Your task to perform on an android device: What's the weather today? Image 0: 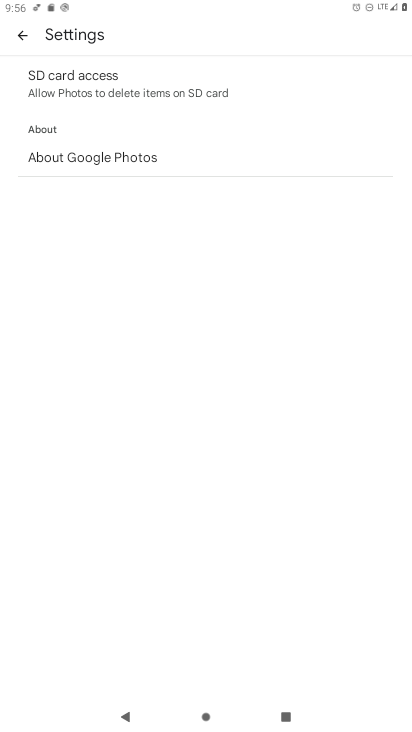
Step 0: press home button
Your task to perform on an android device: What's the weather today? Image 1: 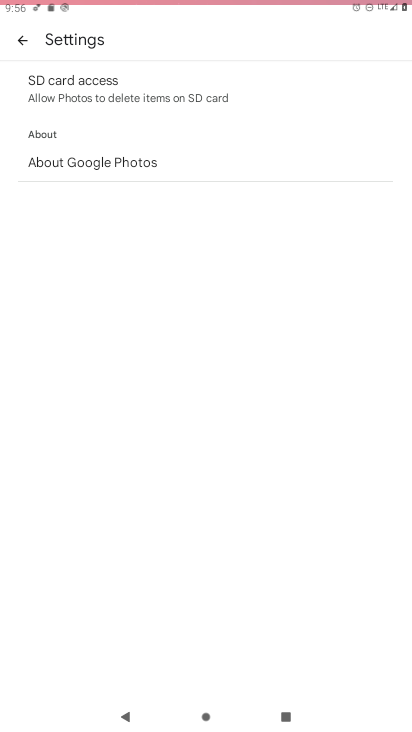
Step 1: drag from (385, 704) to (174, 12)
Your task to perform on an android device: What's the weather today? Image 2: 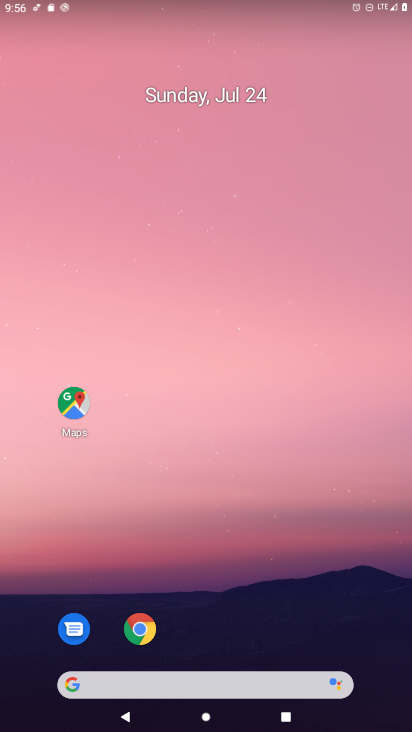
Step 2: drag from (294, 552) to (14, 79)
Your task to perform on an android device: What's the weather today? Image 3: 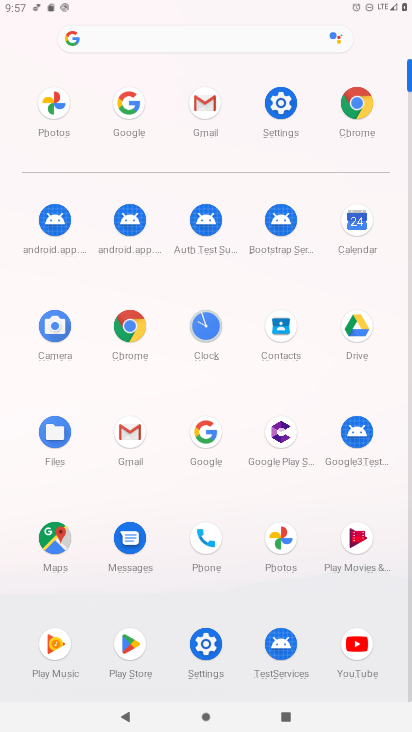
Step 3: click (210, 419)
Your task to perform on an android device: What's the weather today? Image 4: 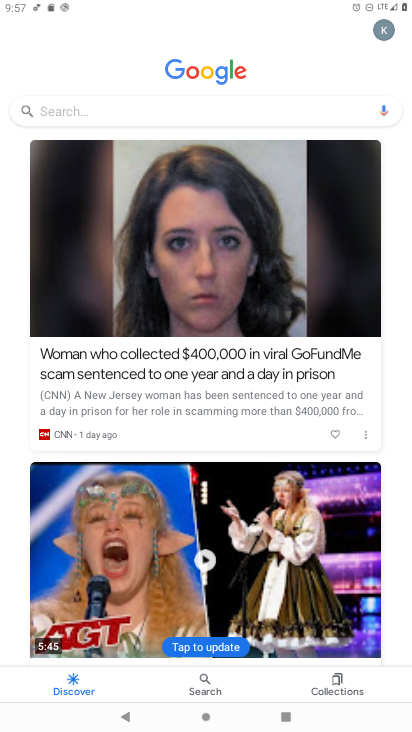
Step 4: click (112, 107)
Your task to perform on an android device: What's the weather today? Image 5: 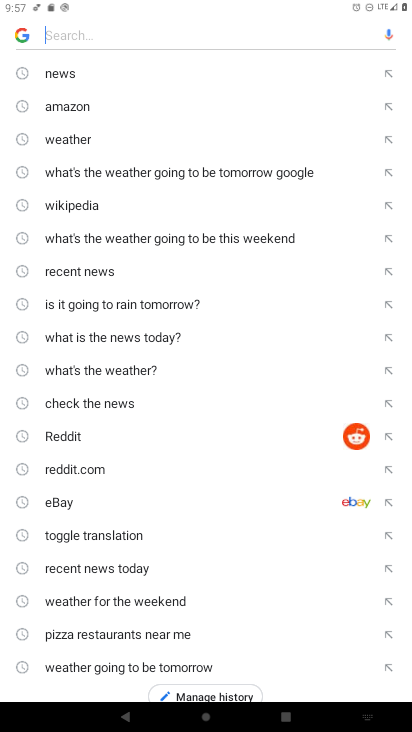
Step 5: type "What's the weather today?"
Your task to perform on an android device: What's the weather today? Image 6: 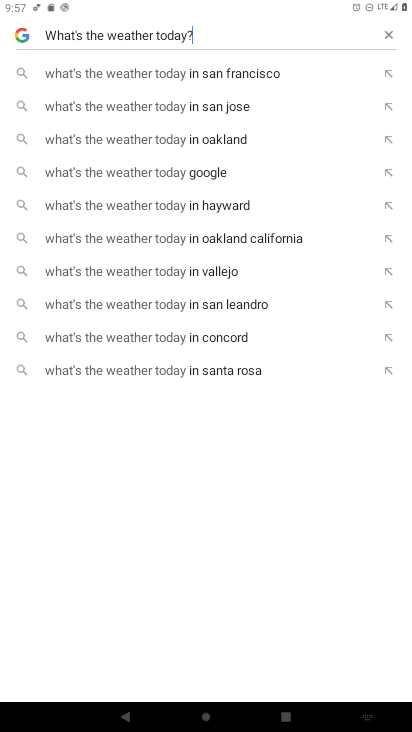
Step 6: click (119, 173)
Your task to perform on an android device: What's the weather today? Image 7: 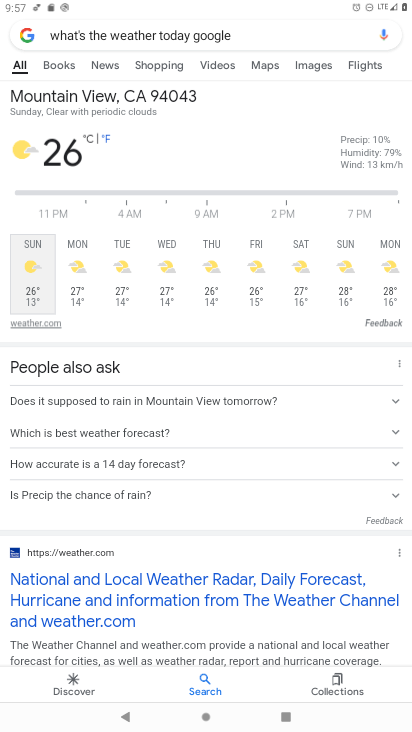
Step 7: task complete